Your task to perform on an android device: toggle translation in the chrome app Image 0: 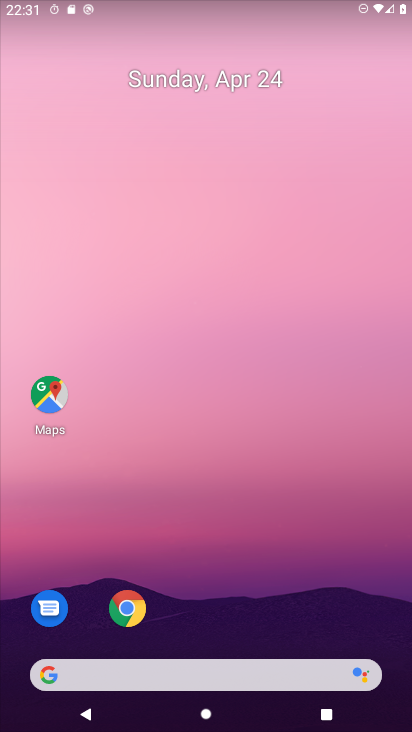
Step 0: click (127, 606)
Your task to perform on an android device: toggle translation in the chrome app Image 1: 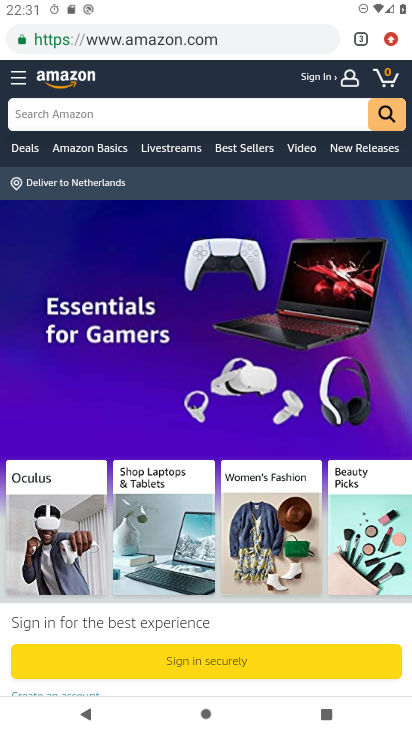
Step 1: click (390, 35)
Your task to perform on an android device: toggle translation in the chrome app Image 2: 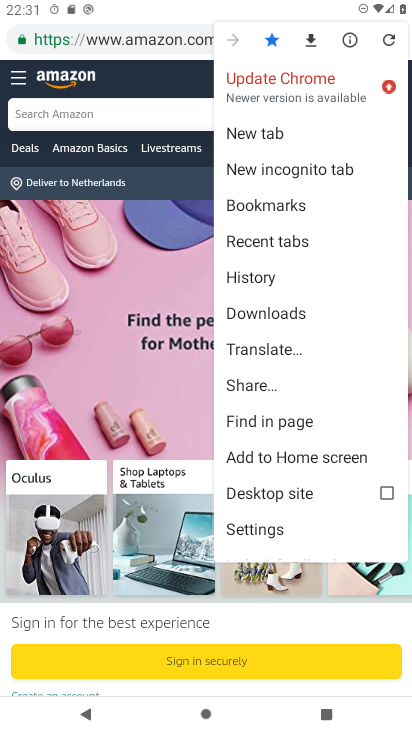
Step 2: click (304, 529)
Your task to perform on an android device: toggle translation in the chrome app Image 3: 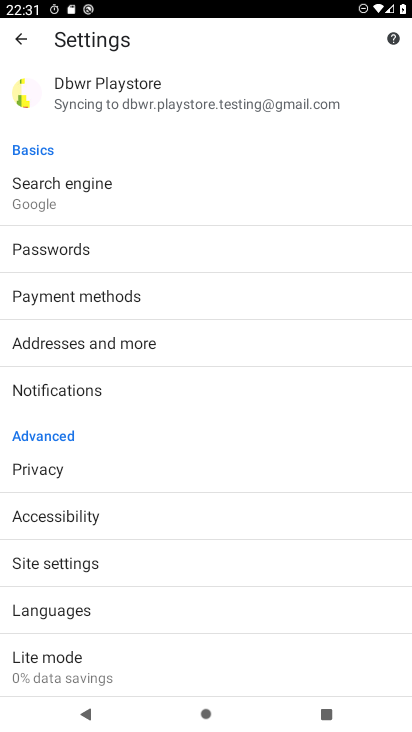
Step 3: click (249, 601)
Your task to perform on an android device: toggle translation in the chrome app Image 4: 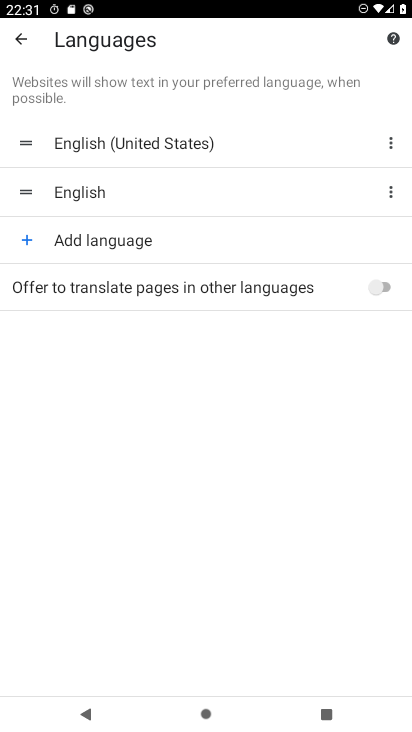
Step 4: click (388, 279)
Your task to perform on an android device: toggle translation in the chrome app Image 5: 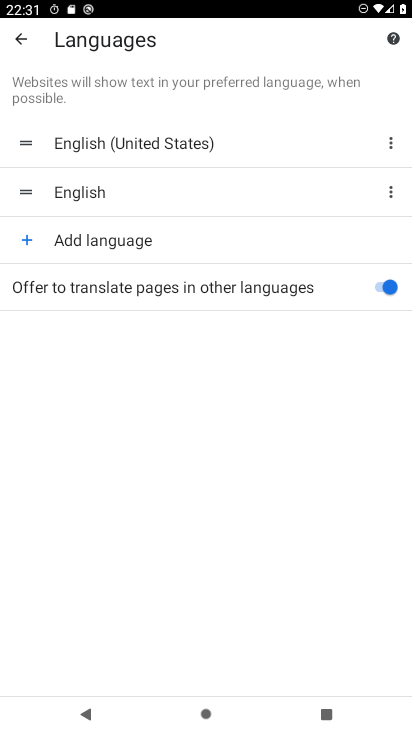
Step 5: task complete